Your task to perform on an android device: Open my contact list Image 0: 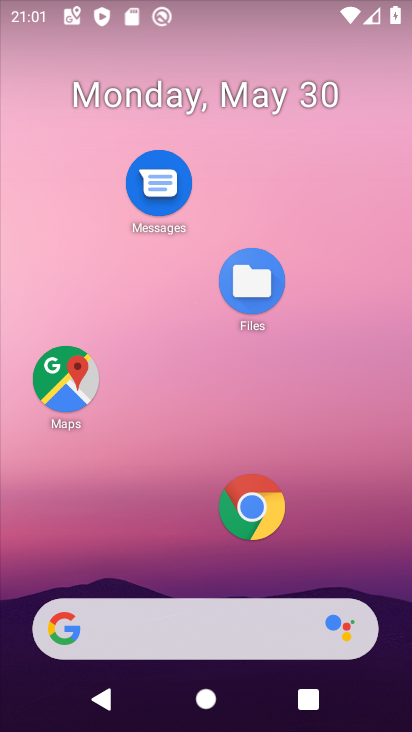
Step 0: drag from (175, 569) to (204, 0)
Your task to perform on an android device: Open my contact list Image 1: 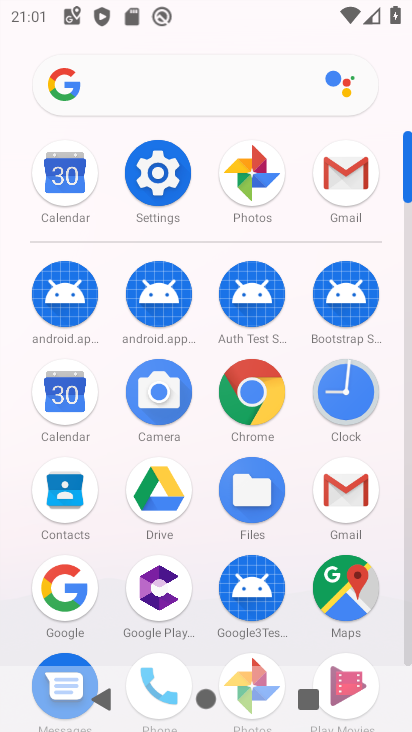
Step 1: click (81, 525)
Your task to perform on an android device: Open my contact list Image 2: 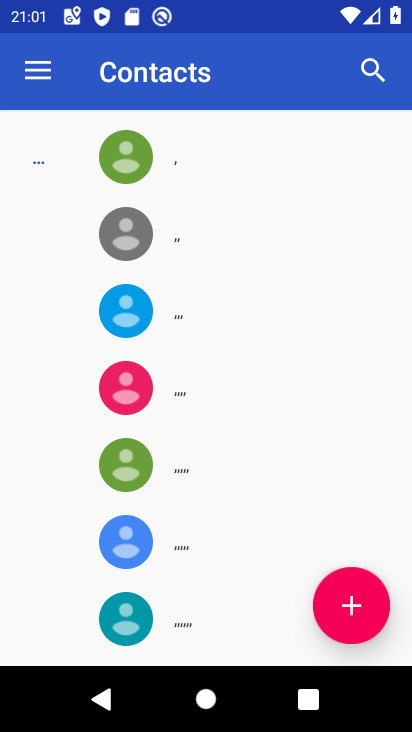
Step 2: task complete